Your task to perform on an android device: Go to Google Image 0: 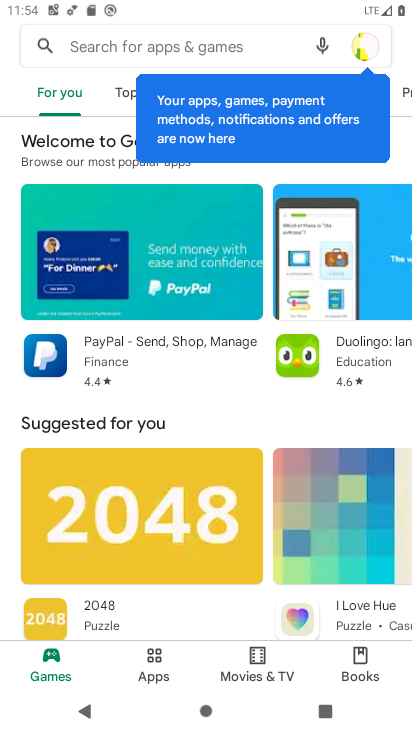
Step 0: press home button
Your task to perform on an android device: Go to Google Image 1: 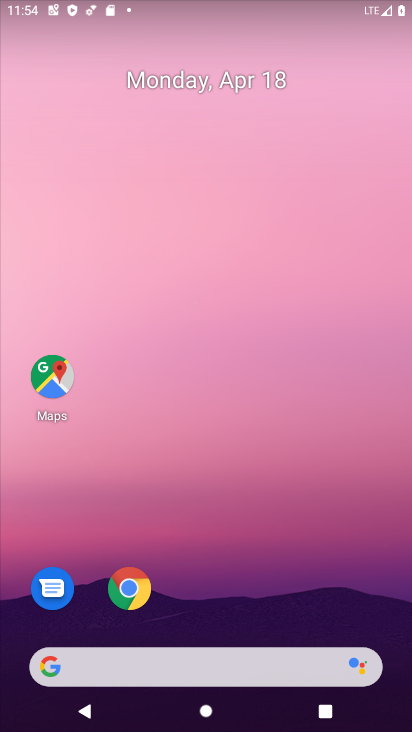
Step 1: drag from (311, 584) to (355, 116)
Your task to perform on an android device: Go to Google Image 2: 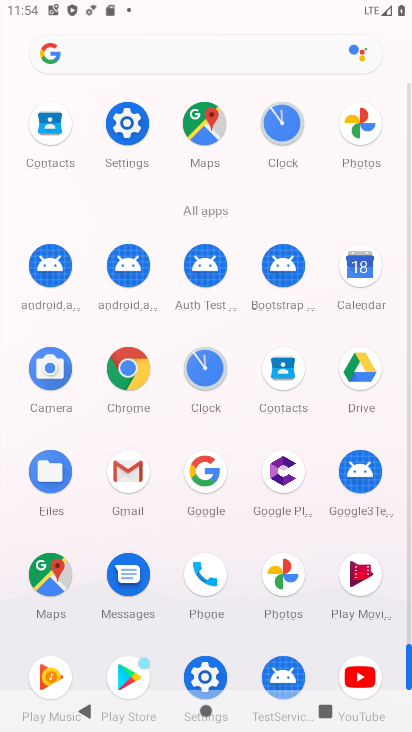
Step 2: click (204, 472)
Your task to perform on an android device: Go to Google Image 3: 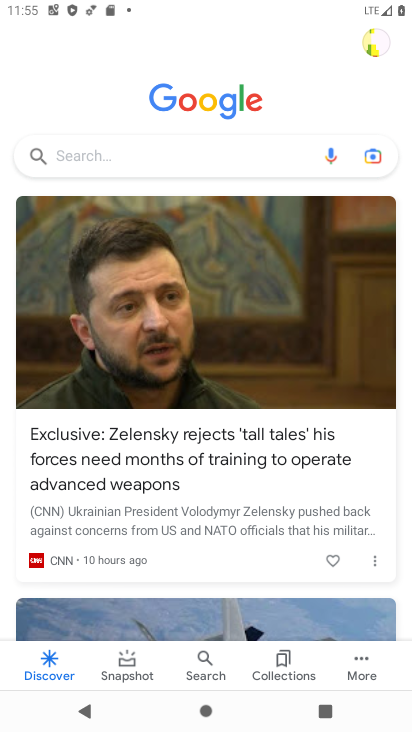
Step 3: task complete